Your task to perform on an android device: Go to ESPN.com Image 0: 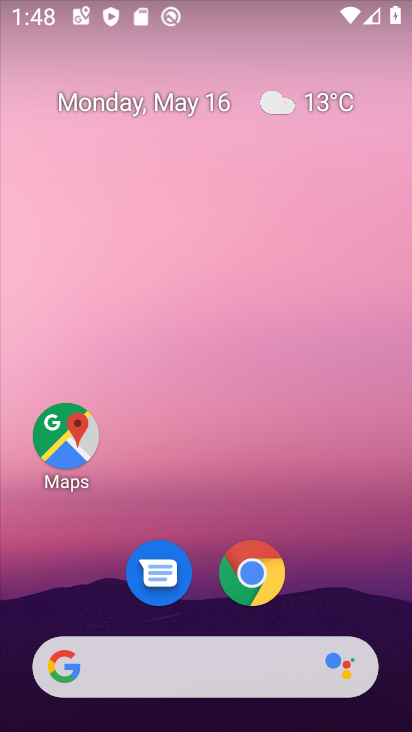
Step 0: click (245, 604)
Your task to perform on an android device: Go to ESPN.com Image 1: 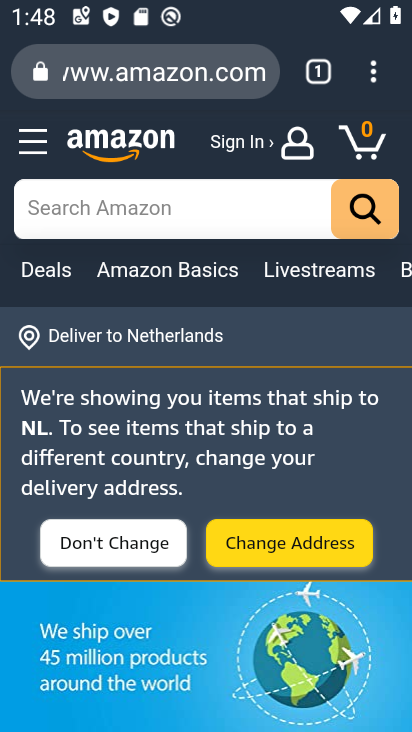
Step 1: click (143, 87)
Your task to perform on an android device: Go to ESPN.com Image 2: 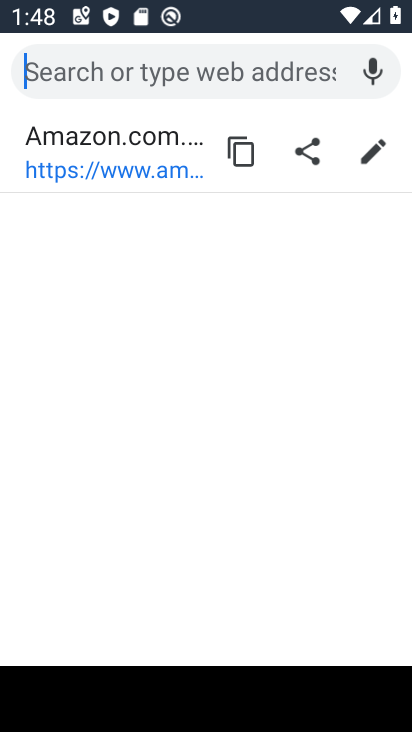
Step 2: type "espn.com"
Your task to perform on an android device: Go to ESPN.com Image 3: 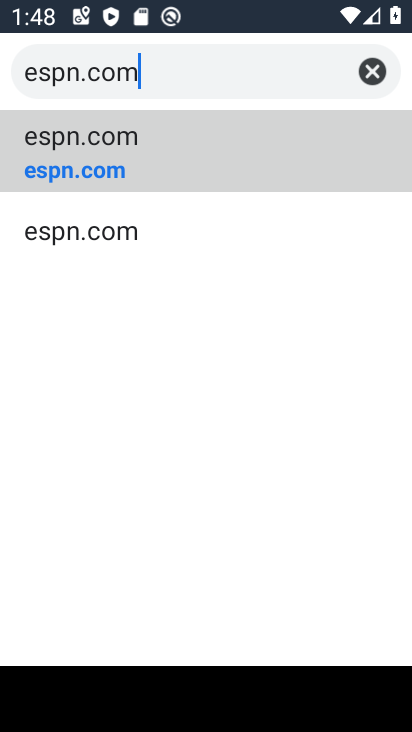
Step 3: click (231, 181)
Your task to perform on an android device: Go to ESPN.com Image 4: 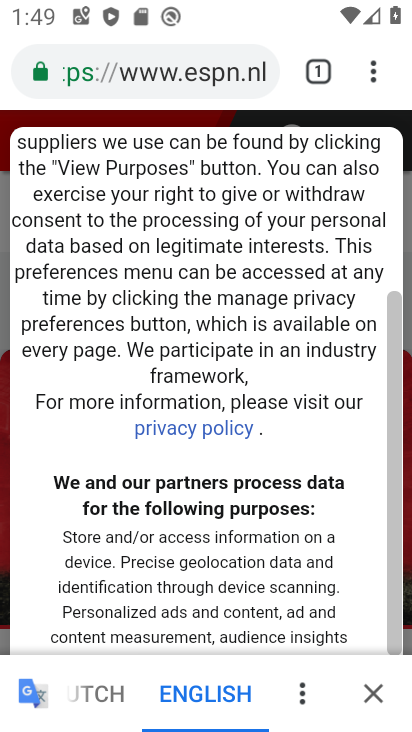
Step 4: task complete